Your task to perform on an android device: Find coffee shops on Maps Image 0: 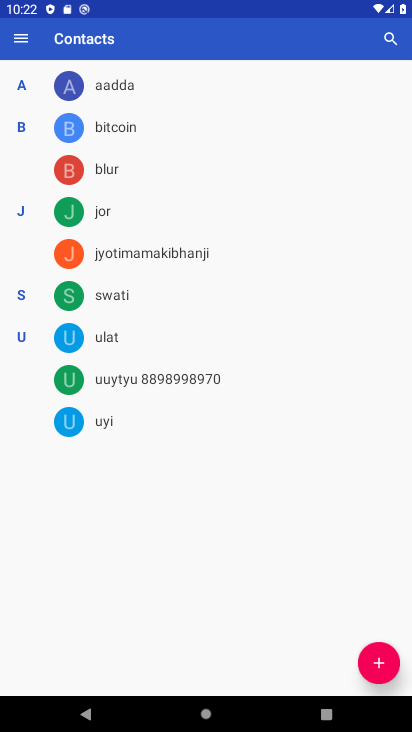
Step 0: press home button
Your task to perform on an android device: Find coffee shops on Maps Image 1: 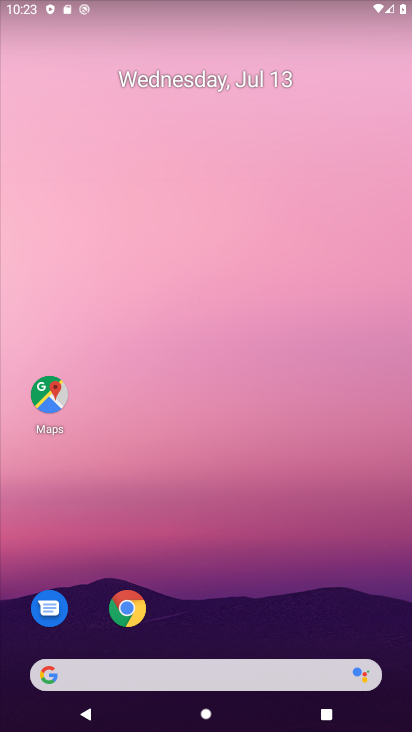
Step 1: click (55, 390)
Your task to perform on an android device: Find coffee shops on Maps Image 2: 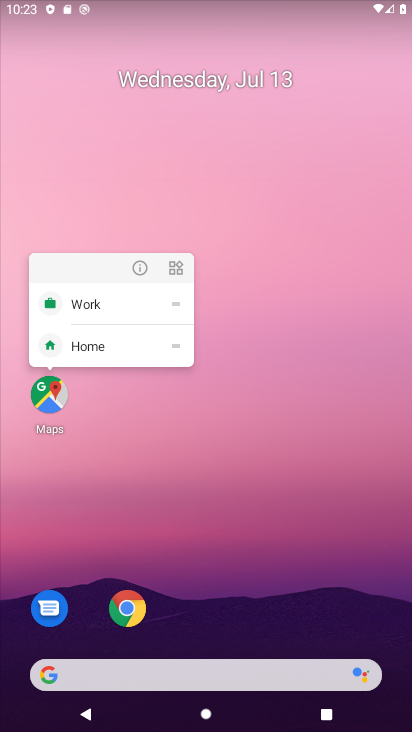
Step 2: click (55, 390)
Your task to perform on an android device: Find coffee shops on Maps Image 3: 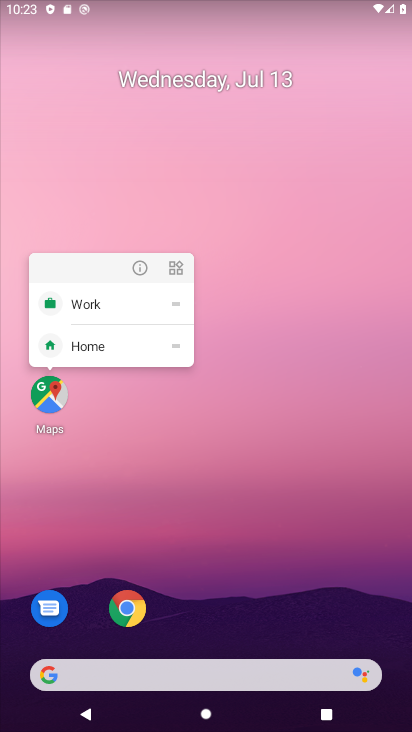
Step 3: click (55, 390)
Your task to perform on an android device: Find coffee shops on Maps Image 4: 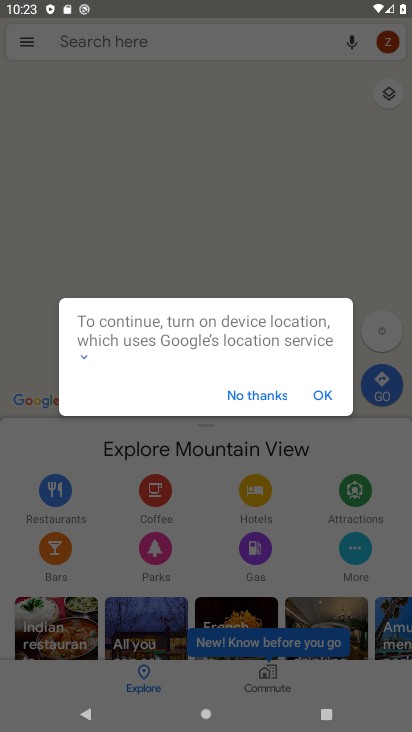
Step 4: click (274, 394)
Your task to perform on an android device: Find coffee shops on Maps Image 5: 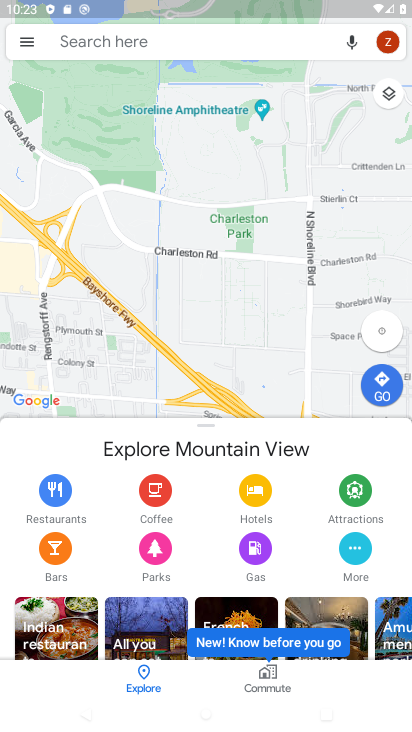
Step 5: click (93, 41)
Your task to perform on an android device: Find coffee shops on Maps Image 6: 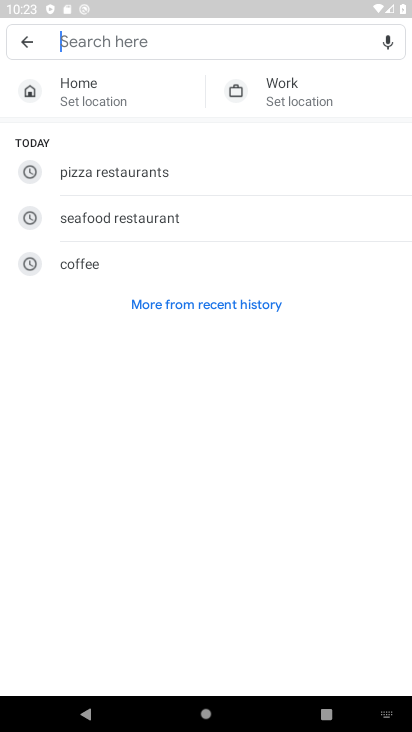
Step 6: type " coffee shops "
Your task to perform on an android device: Find coffee shops on Maps Image 7: 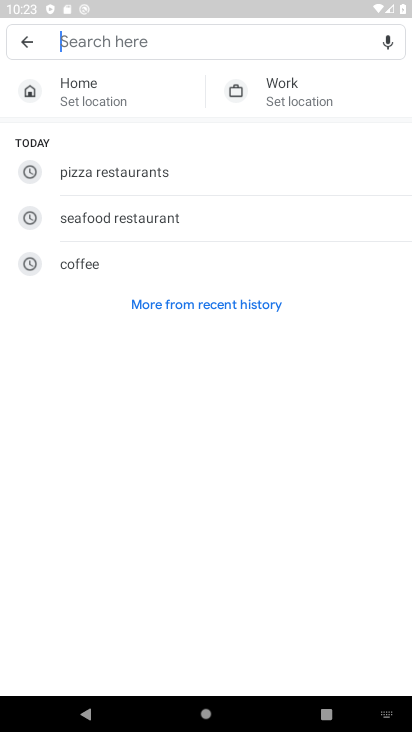
Step 7: click (114, 46)
Your task to perform on an android device: Find coffee shops on Maps Image 8: 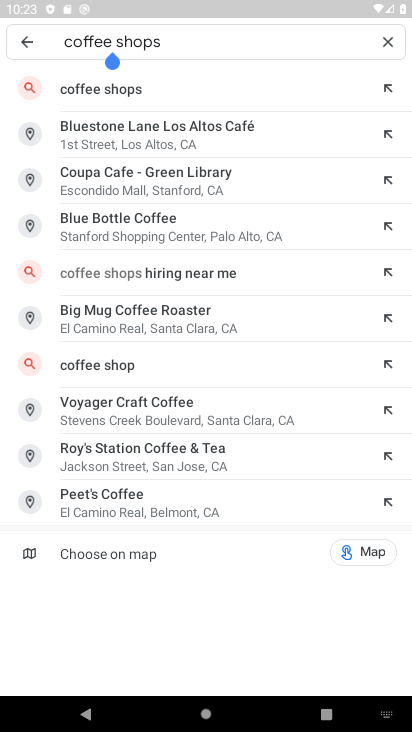
Step 8: press enter
Your task to perform on an android device: Find coffee shops on Maps Image 9: 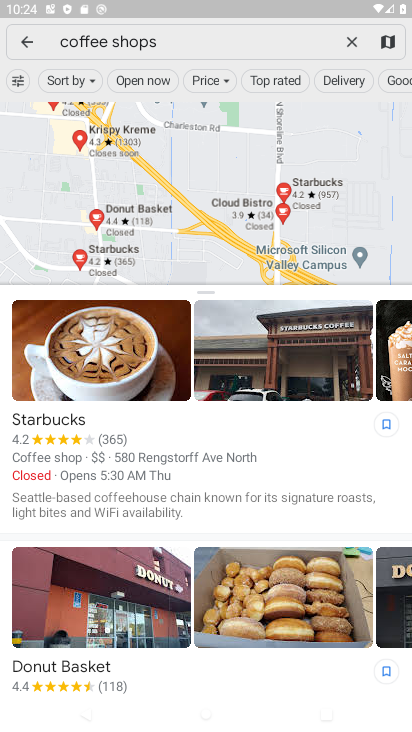
Step 9: task complete